Your task to perform on an android device: turn on translation in the chrome app Image 0: 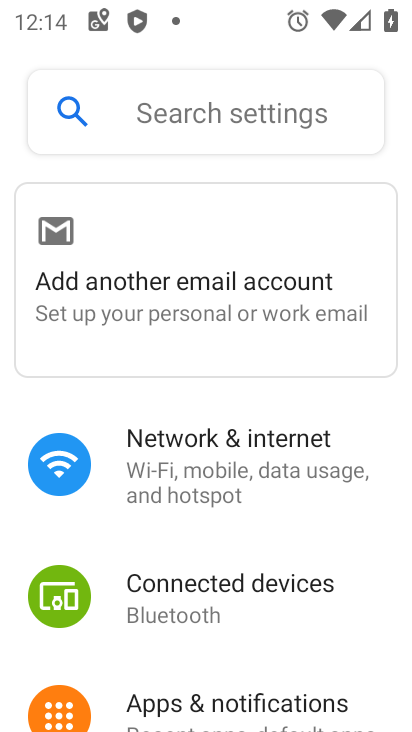
Step 0: press home button
Your task to perform on an android device: turn on translation in the chrome app Image 1: 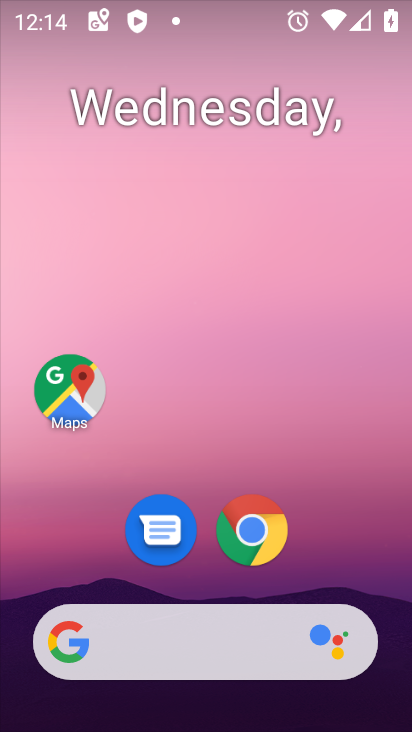
Step 1: click (255, 527)
Your task to perform on an android device: turn on translation in the chrome app Image 2: 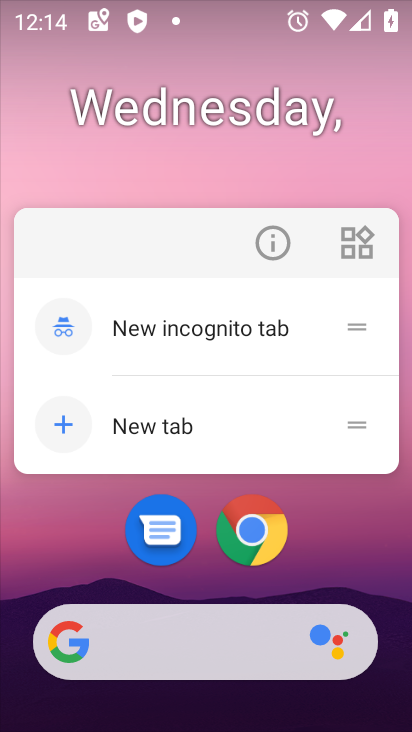
Step 2: click (277, 235)
Your task to perform on an android device: turn on translation in the chrome app Image 3: 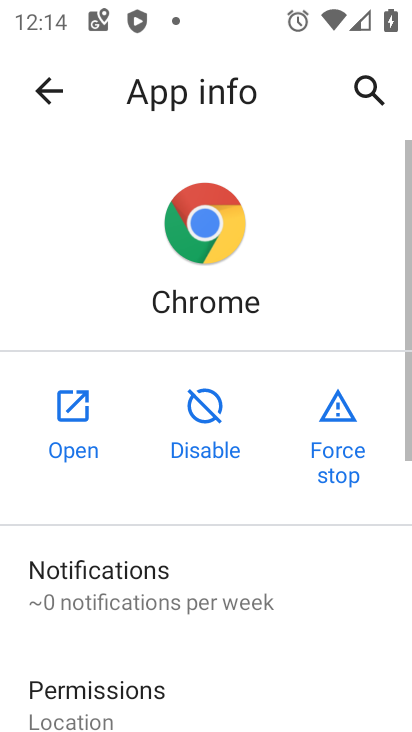
Step 3: click (73, 419)
Your task to perform on an android device: turn on translation in the chrome app Image 4: 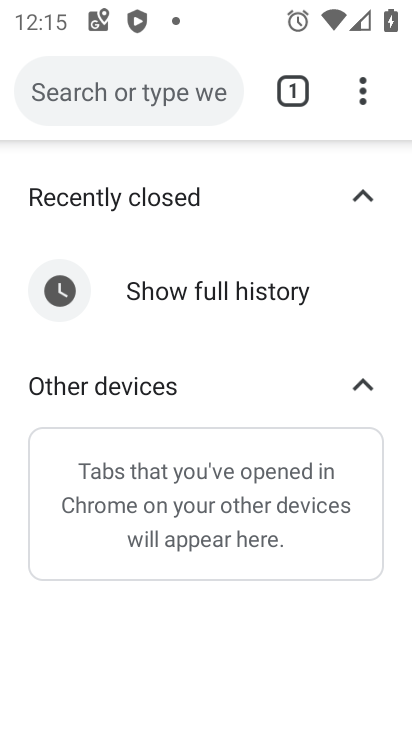
Step 4: press home button
Your task to perform on an android device: turn on translation in the chrome app Image 5: 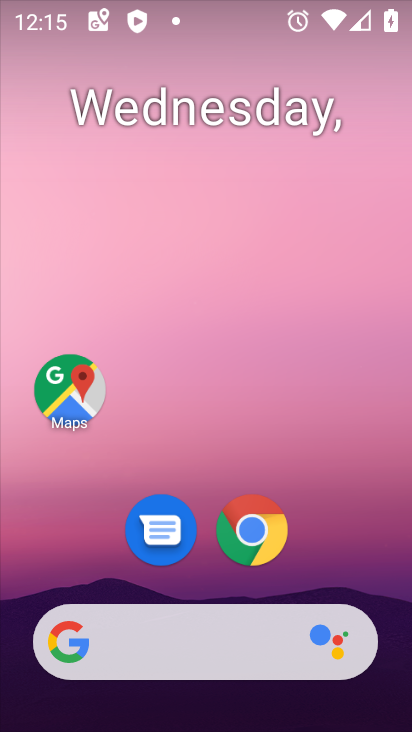
Step 5: click (252, 532)
Your task to perform on an android device: turn on translation in the chrome app Image 6: 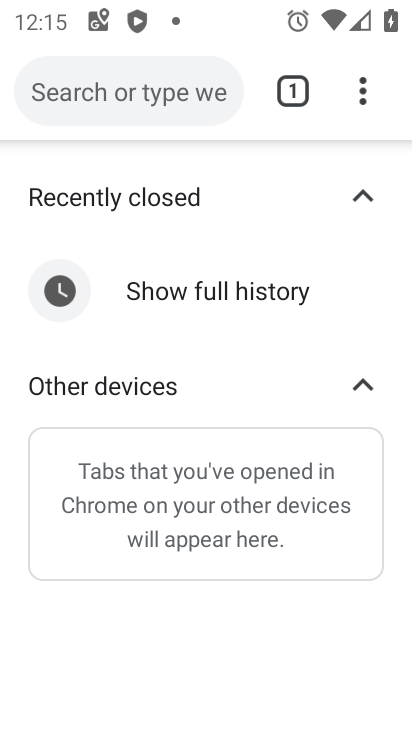
Step 6: click (374, 91)
Your task to perform on an android device: turn on translation in the chrome app Image 7: 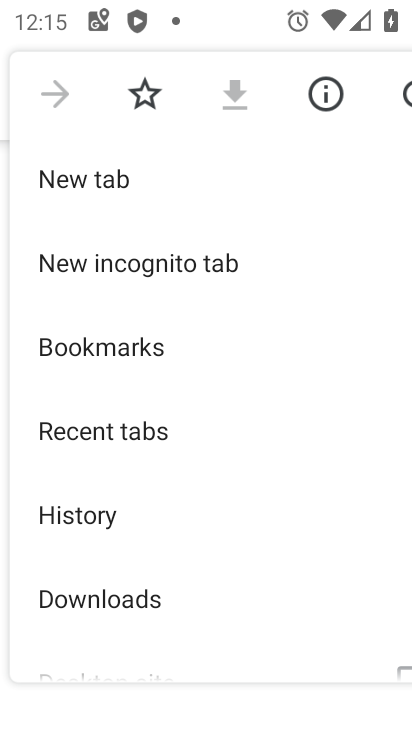
Step 7: drag from (131, 632) to (235, 274)
Your task to perform on an android device: turn on translation in the chrome app Image 8: 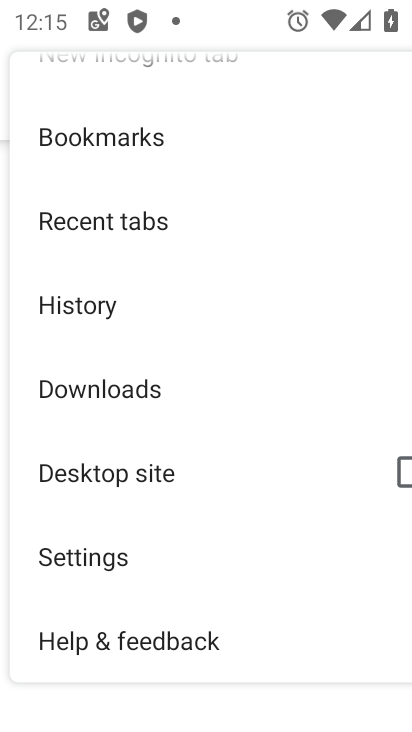
Step 8: click (109, 558)
Your task to perform on an android device: turn on translation in the chrome app Image 9: 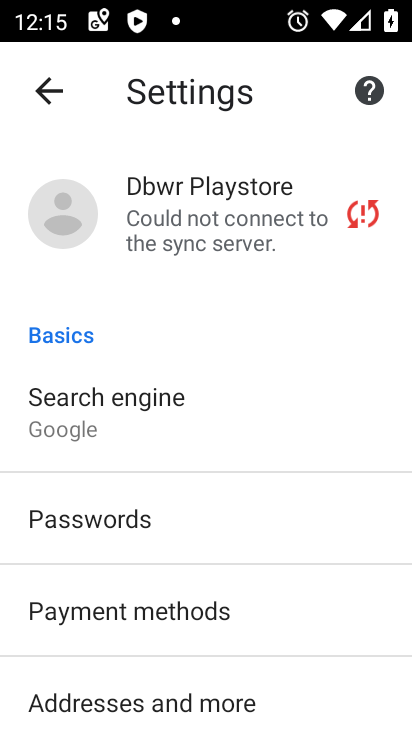
Step 9: drag from (174, 585) to (264, 224)
Your task to perform on an android device: turn on translation in the chrome app Image 10: 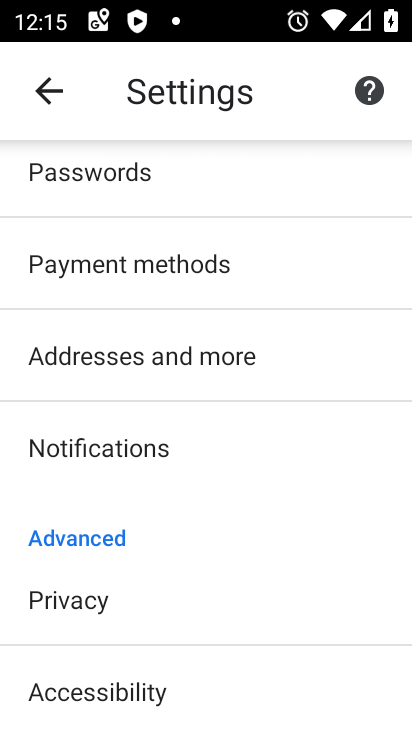
Step 10: drag from (126, 628) to (219, 317)
Your task to perform on an android device: turn on translation in the chrome app Image 11: 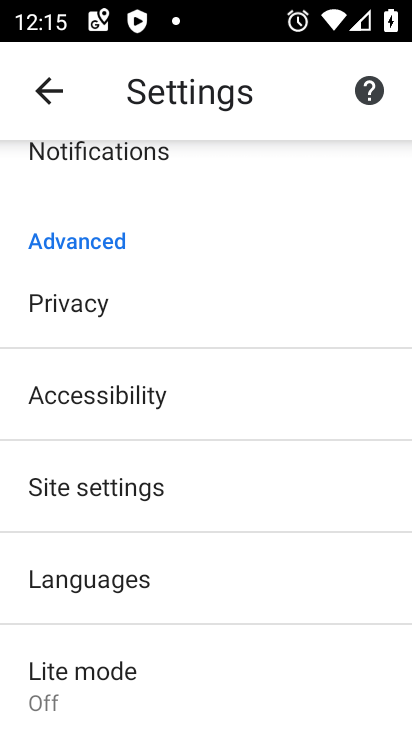
Step 11: click (110, 589)
Your task to perform on an android device: turn on translation in the chrome app Image 12: 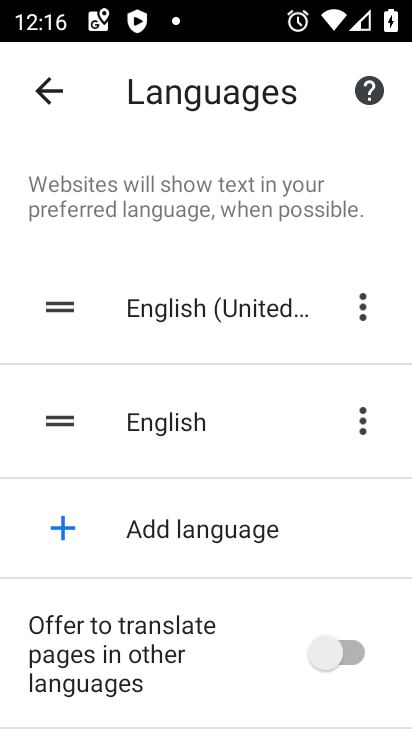
Step 12: click (333, 660)
Your task to perform on an android device: turn on translation in the chrome app Image 13: 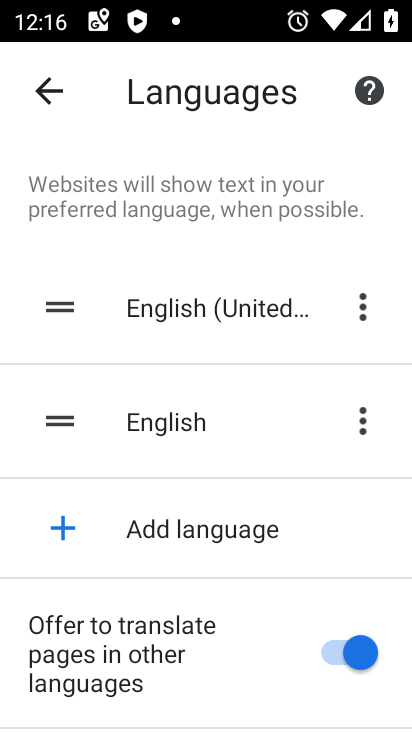
Step 13: task complete